Your task to perform on an android device: open a bookmark in the chrome app Image 0: 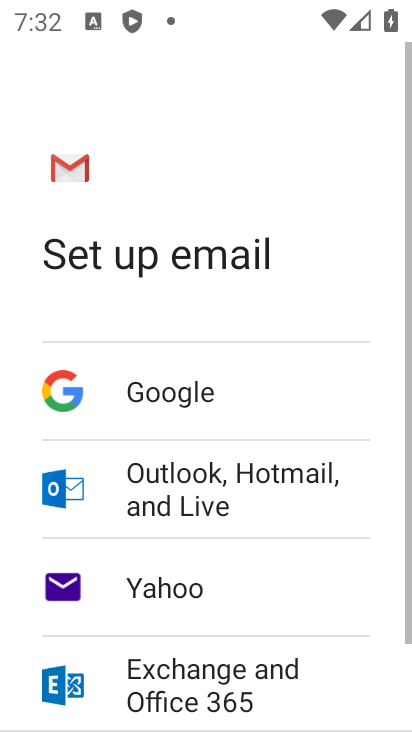
Step 0: press home button
Your task to perform on an android device: open a bookmark in the chrome app Image 1: 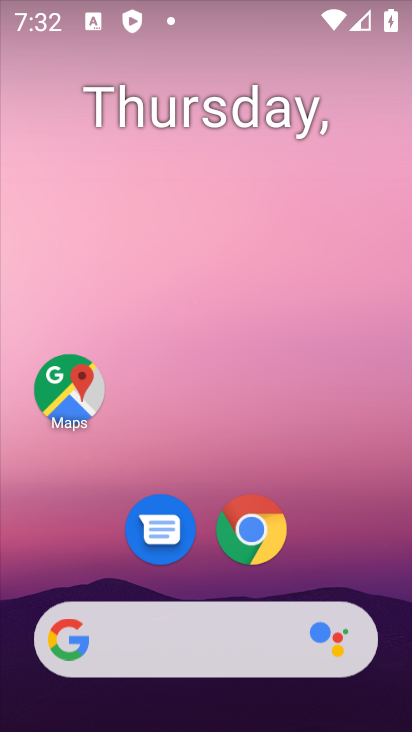
Step 1: click (251, 544)
Your task to perform on an android device: open a bookmark in the chrome app Image 2: 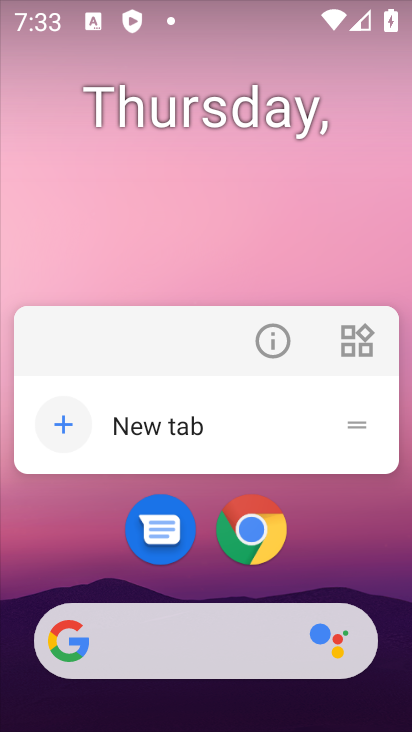
Step 2: click (262, 535)
Your task to perform on an android device: open a bookmark in the chrome app Image 3: 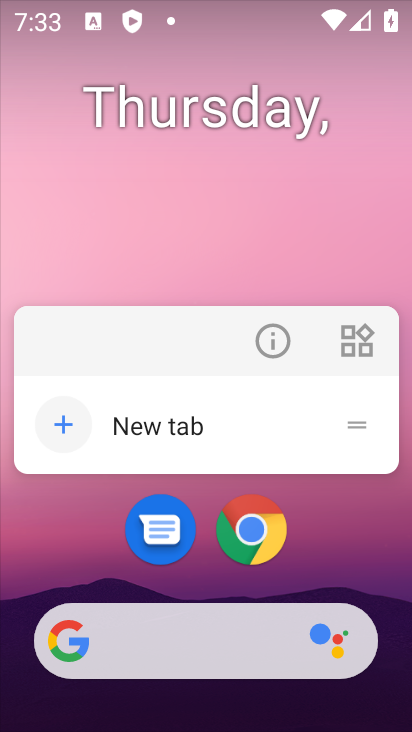
Step 3: click (261, 541)
Your task to perform on an android device: open a bookmark in the chrome app Image 4: 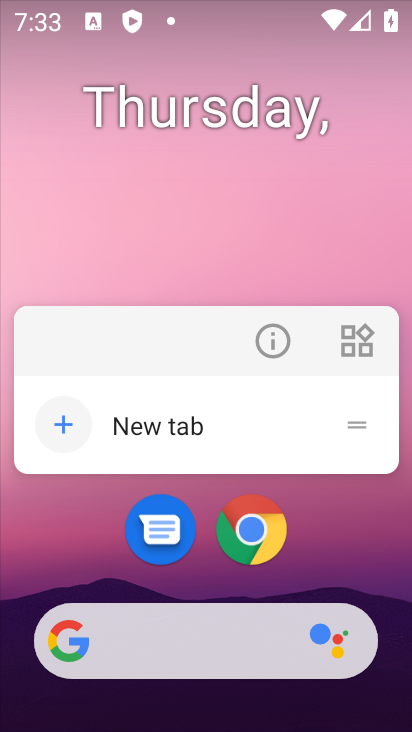
Step 4: click (261, 550)
Your task to perform on an android device: open a bookmark in the chrome app Image 5: 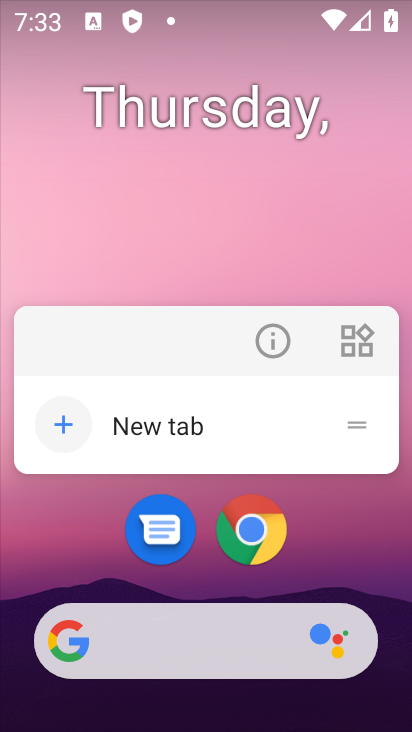
Step 5: click (258, 560)
Your task to perform on an android device: open a bookmark in the chrome app Image 6: 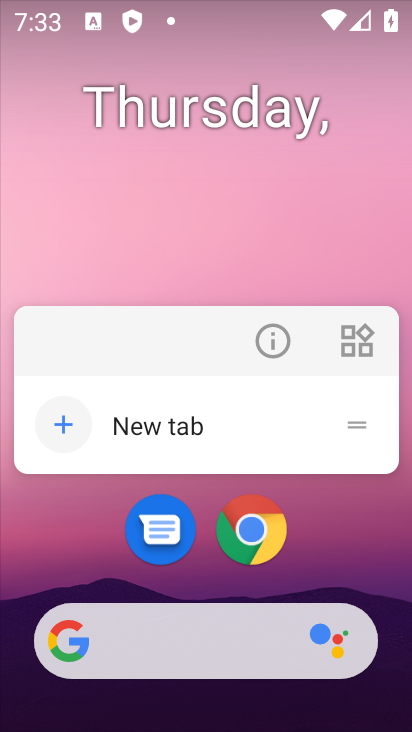
Step 6: click (253, 535)
Your task to perform on an android device: open a bookmark in the chrome app Image 7: 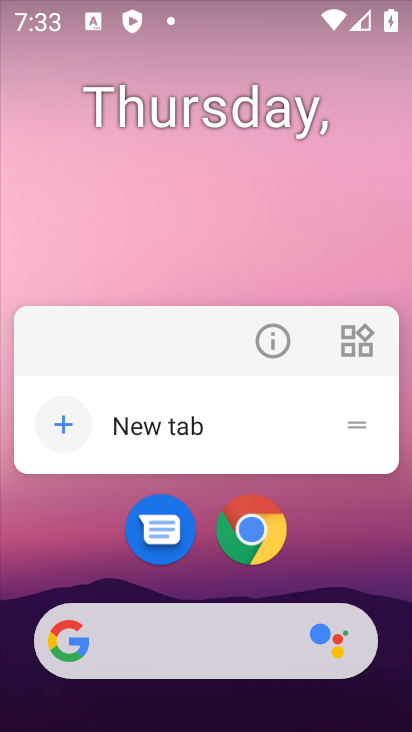
Step 7: click (254, 543)
Your task to perform on an android device: open a bookmark in the chrome app Image 8: 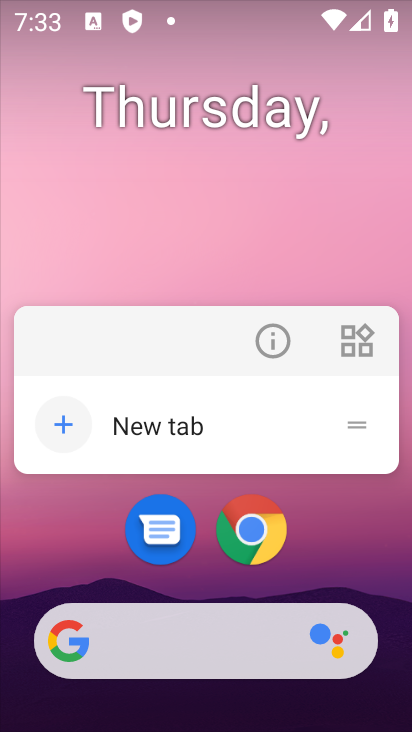
Step 8: click (254, 543)
Your task to perform on an android device: open a bookmark in the chrome app Image 9: 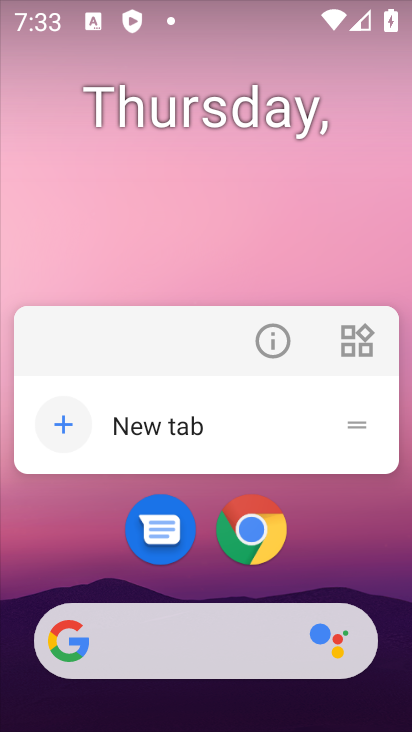
Step 9: click (254, 535)
Your task to perform on an android device: open a bookmark in the chrome app Image 10: 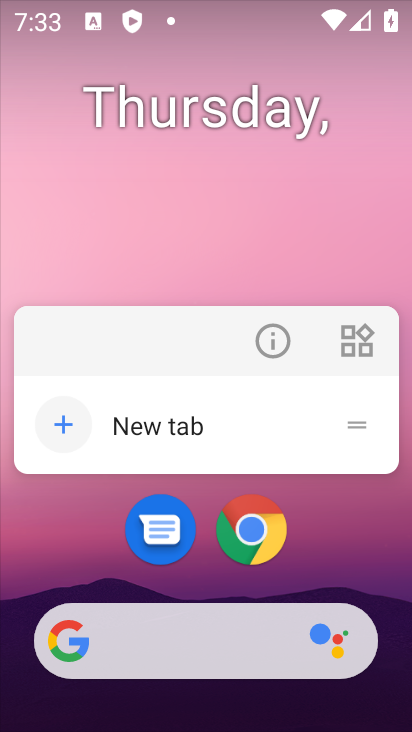
Step 10: click (254, 519)
Your task to perform on an android device: open a bookmark in the chrome app Image 11: 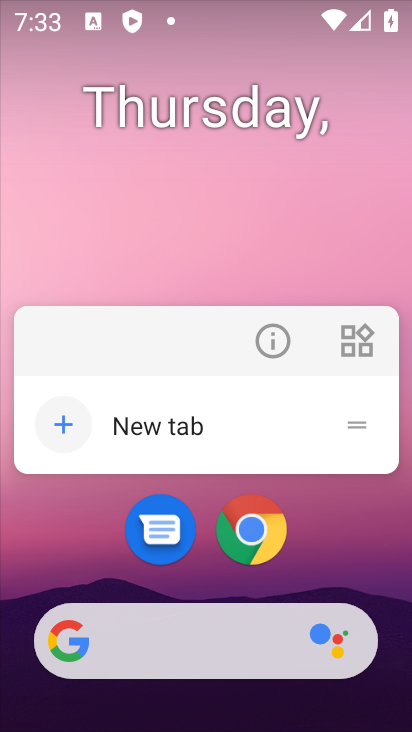
Step 11: click (257, 506)
Your task to perform on an android device: open a bookmark in the chrome app Image 12: 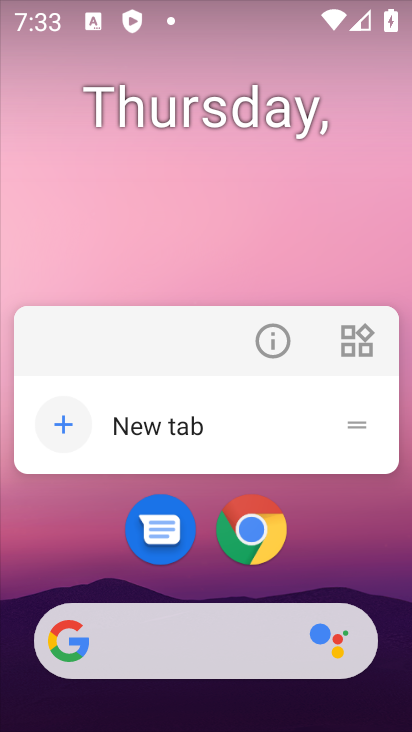
Step 12: click (248, 525)
Your task to perform on an android device: open a bookmark in the chrome app Image 13: 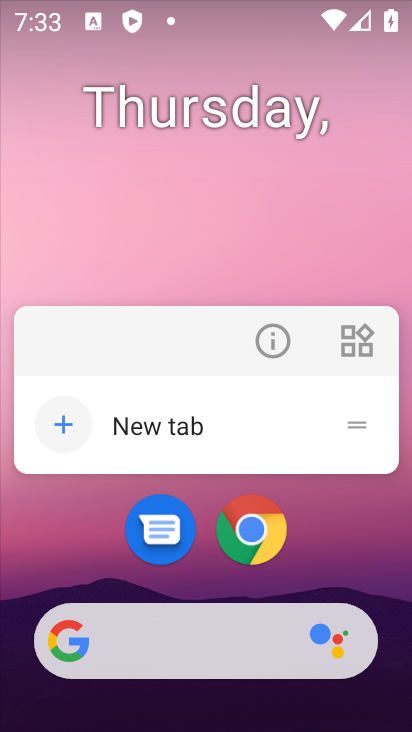
Step 13: click (246, 532)
Your task to perform on an android device: open a bookmark in the chrome app Image 14: 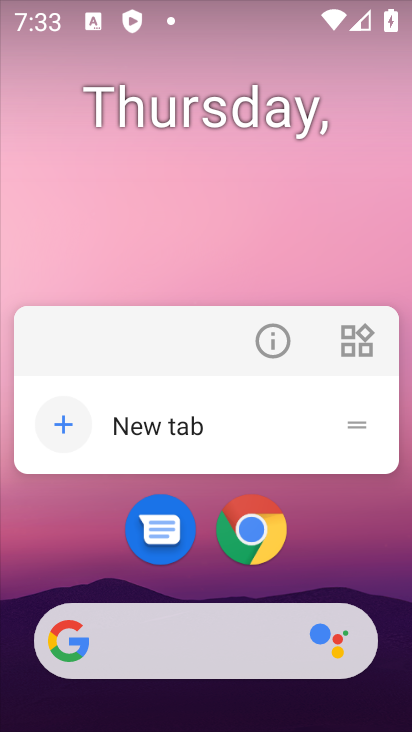
Step 14: click (249, 524)
Your task to perform on an android device: open a bookmark in the chrome app Image 15: 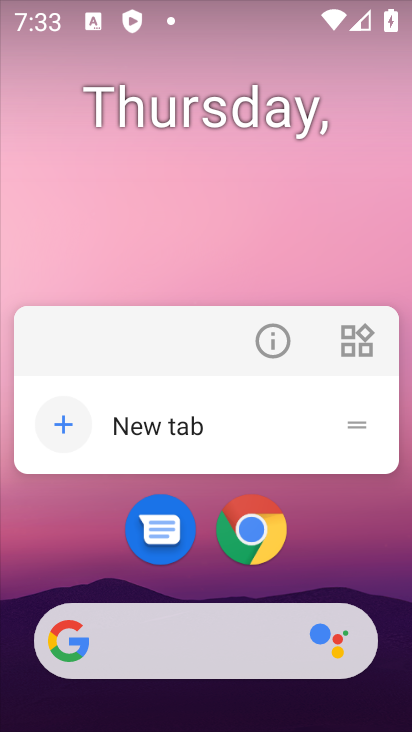
Step 15: click (251, 535)
Your task to perform on an android device: open a bookmark in the chrome app Image 16: 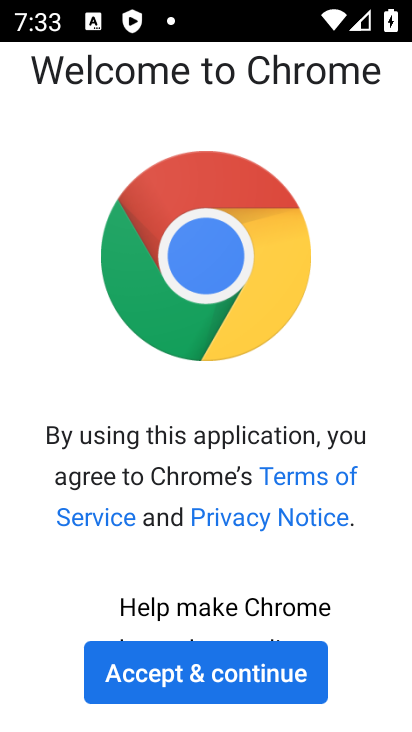
Step 16: click (279, 667)
Your task to perform on an android device: open a bookmark in the chrome app Image 17: 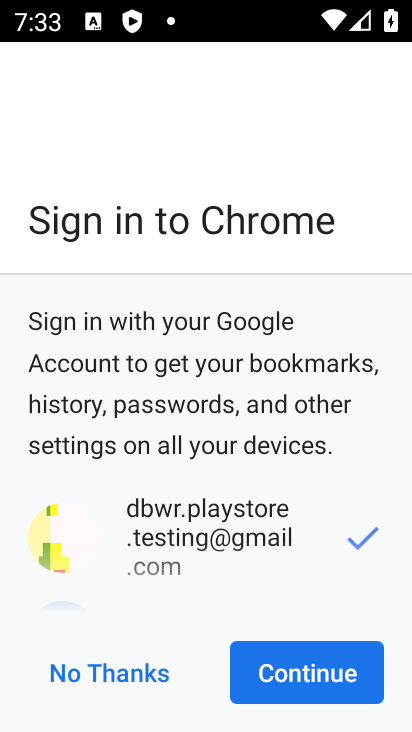
Step 17: click (286, 668)
Your task to perform on an android device: open a bookmark in the chrome app Image 18: 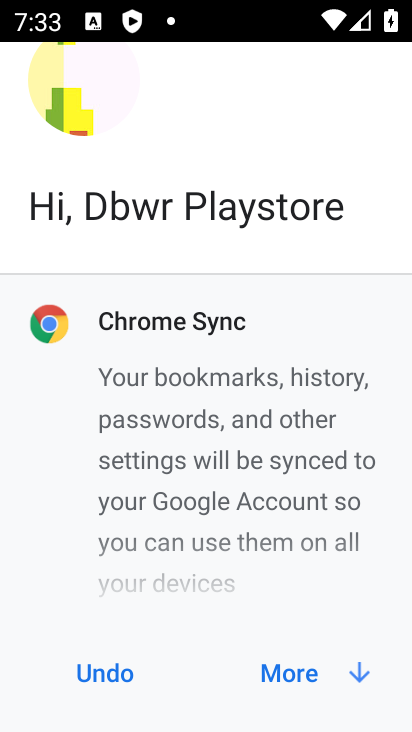
Step 18: click (278, 672)
Your task to perform on an android device: open a bookmark in the chrome app Image 19: 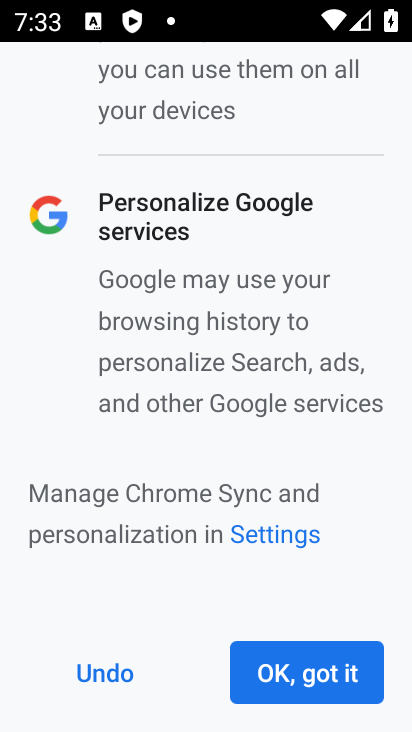
Step 19: click (274, 667)
Your task to perform on an android device: open a bookmark in the chrome app Image 20: 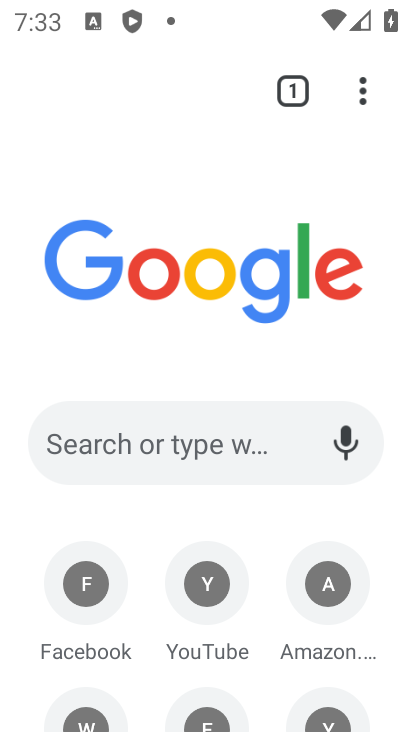
Step 20: click (363, 93)
Your task to perform on an android device: open a bookmark in the chrome app Image 21: 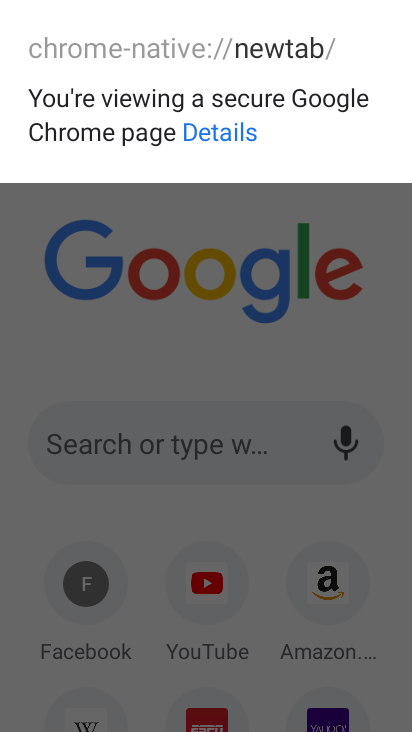
Step 21: click (389, 229)
Your task to perform on an android device: open a bookmark in the chrome app Image 22: 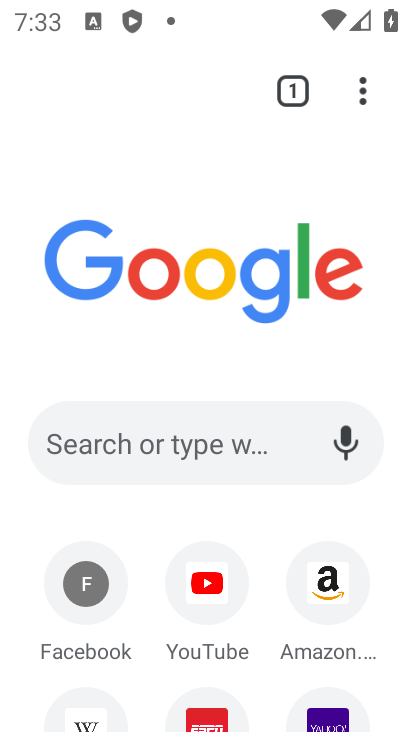
Step 22: click (359, 86)
Your task to perform on an android device: open a bookmark in the chrome app Image 23: 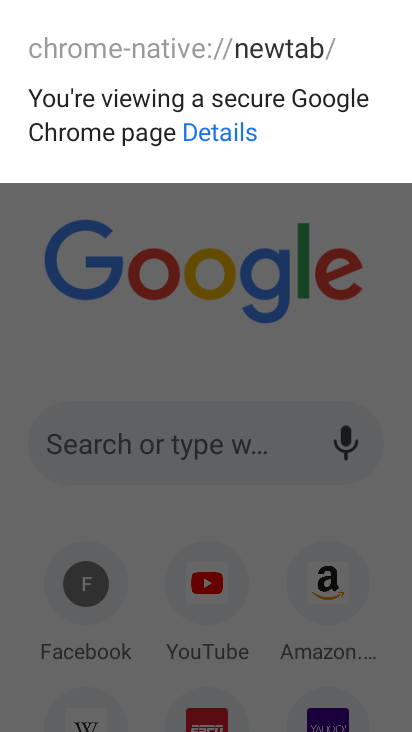
Step 23: click (335, 231)
Your task to perform on an android device: open a bookmark in the chrome app Image 24: 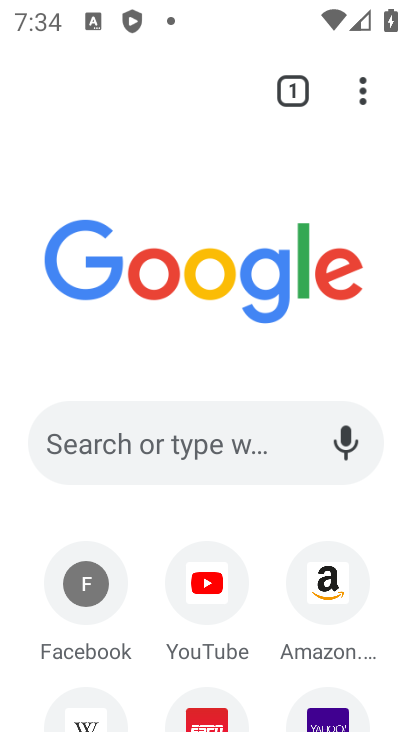
Step 24: click (364, 96)
Your task to perform on an android device: open a bookmark in the chrome app Image 25: 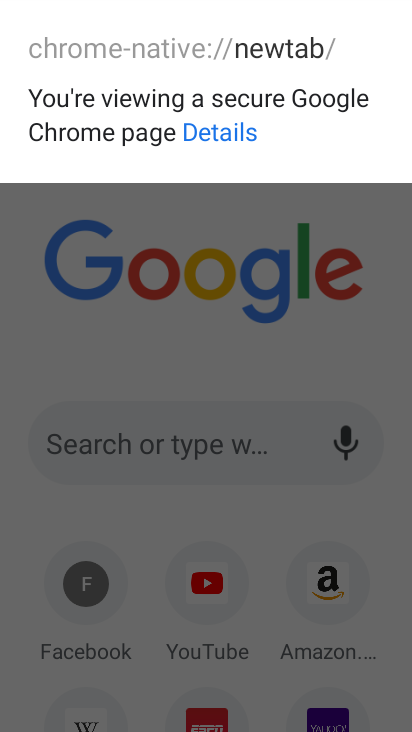
Step 25: click (337, 231)
Your task to perform on an android device: open a bookmark in the chrome app Image 26: 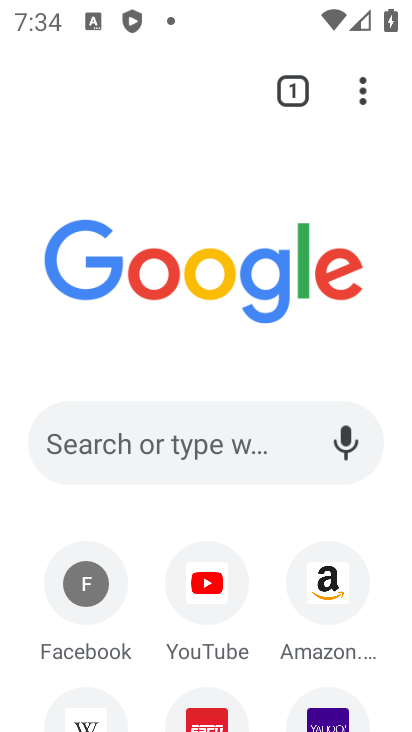
Step 26: click (360, 94)
Your task to perform on an android device: open a bookmark in the chrome app Image 27: 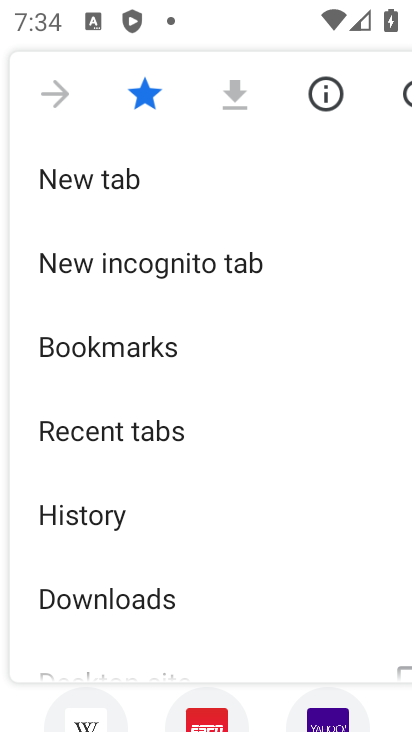
Step 27: click (117, 353)
Your task to perform on an android device: open a bookmark in the chrome app Image 28: 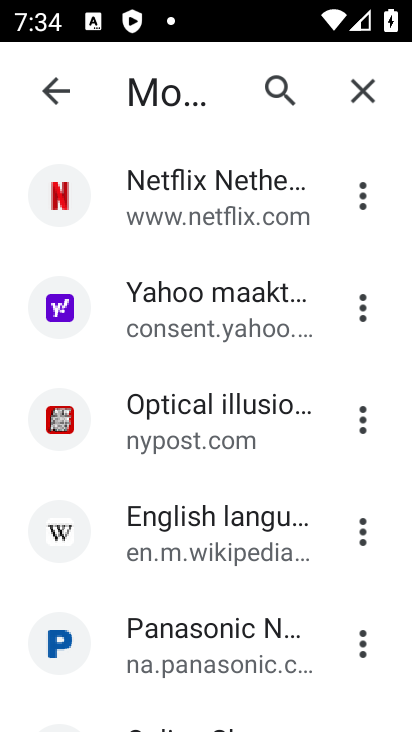
Step 28: click (184, 318)
Your task to perform on an android device: open a bookmark in the chrome app Image 29: 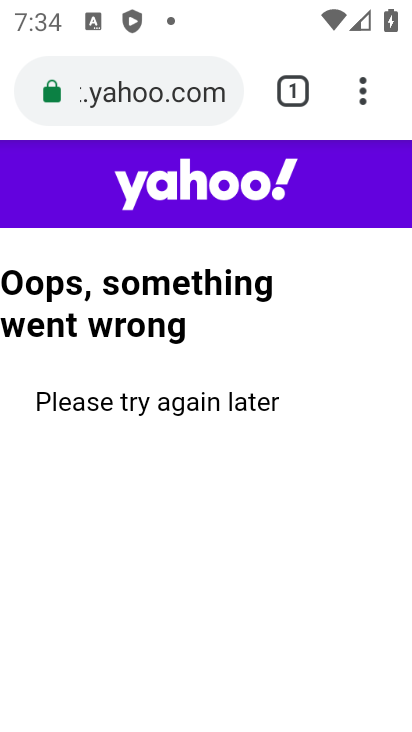
Step 29: task complete